Your task to perform on an android device: Go to Google maps Image 0: 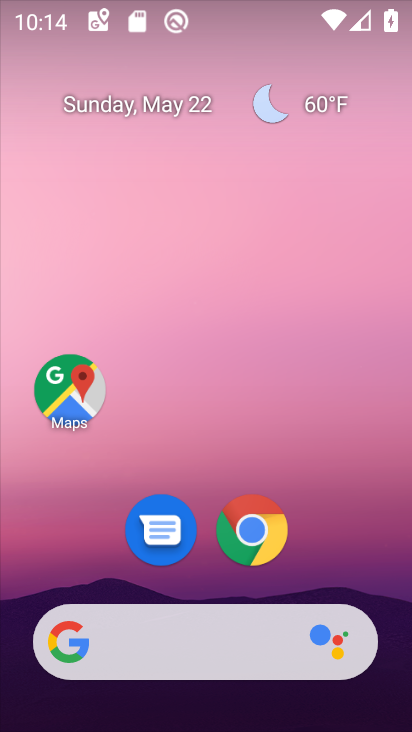
Step 0: click (67, 400)
Your task to perform on an android device: Go to Google maps Image 1: 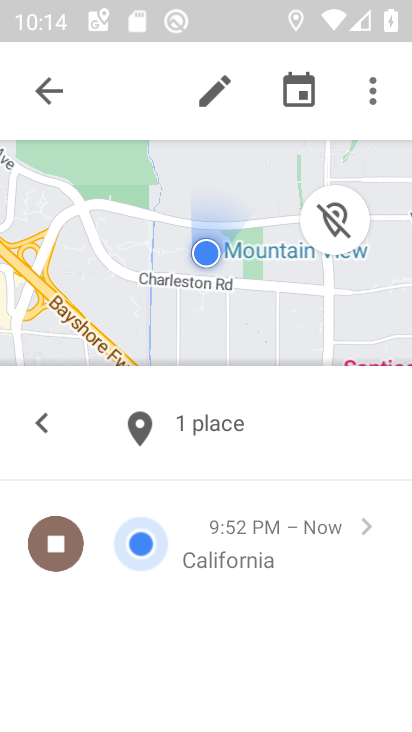
Step 1: task complete